Your task to perform on an android device: check google app version Image 0: 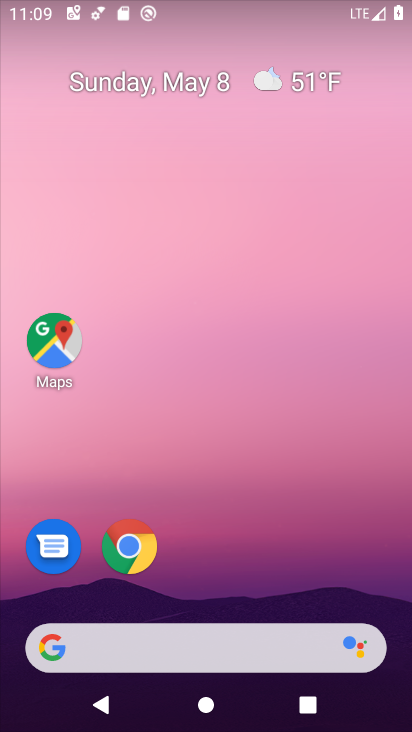
Step 0: drag from (399, 625) to (308, 0)
Your task to perform on an android device: check google app version Image 1: 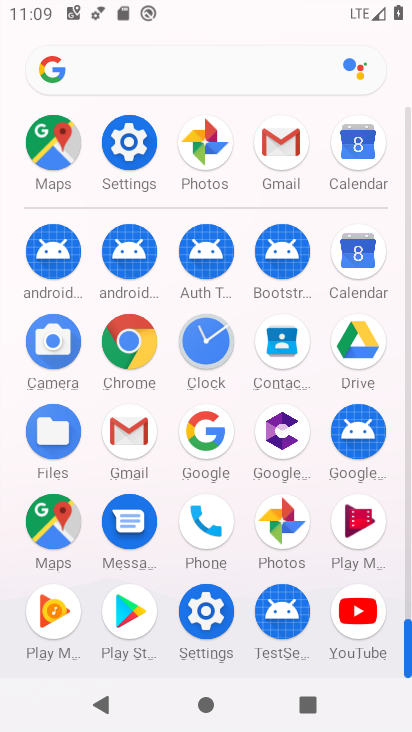
Step 1: click (408, 605)
Your task to perform on an android device: check google app version Image 2: 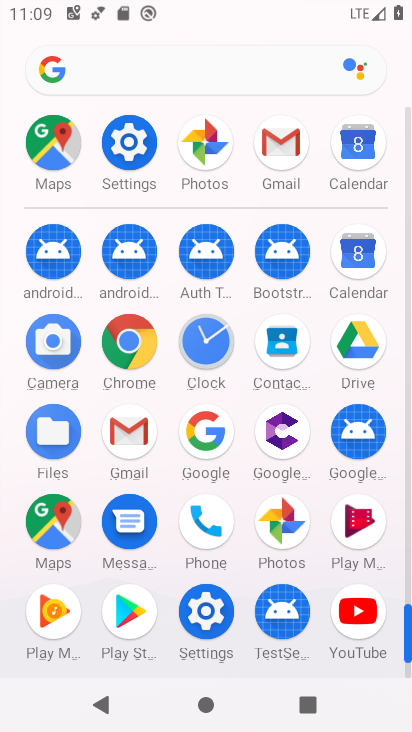
Step 2: click (127, 338)
Your task to perform on an android device: check google app version Image 3: 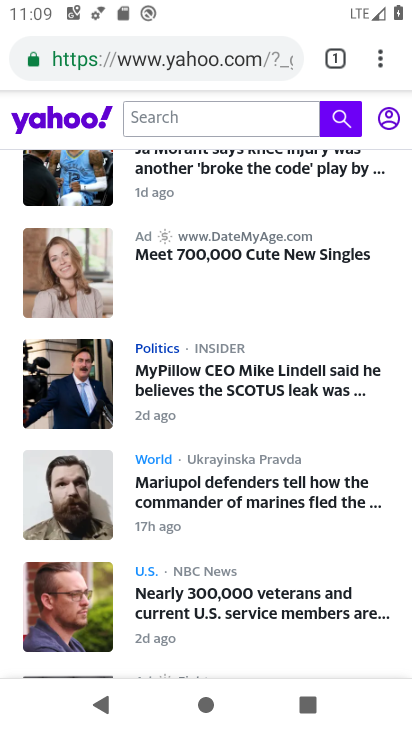
Step 3: click (377, 65)
Your task to perform on an android device: check google app version Image 4: 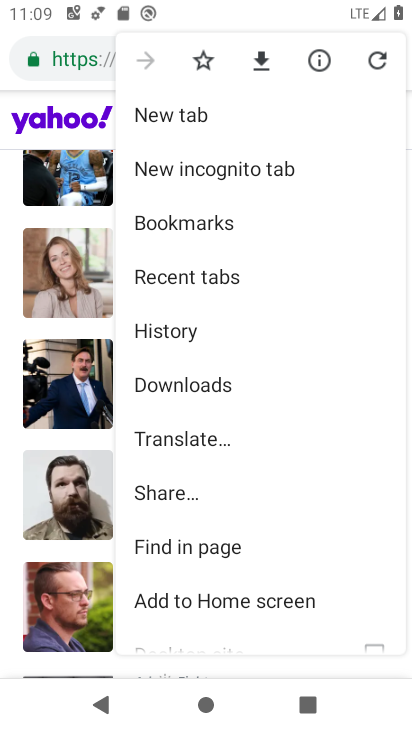
Step 4: drag from (211, 508) to (273, 123)
Your task to perform on an android device: check google app version Image 5: 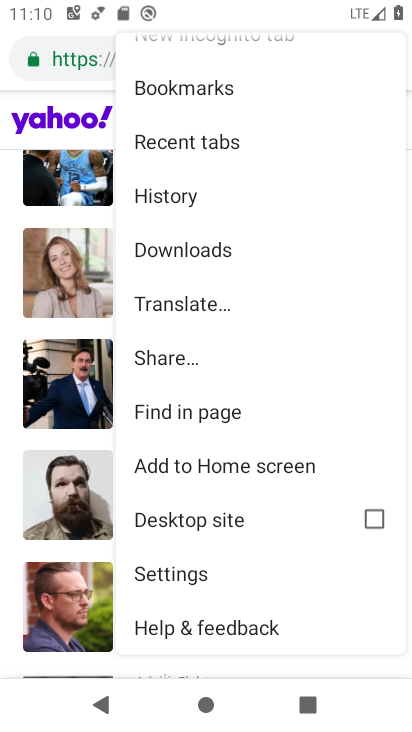
Step 5: click (176, 566)
Your task to perform on an android device: check google app version Image 6: 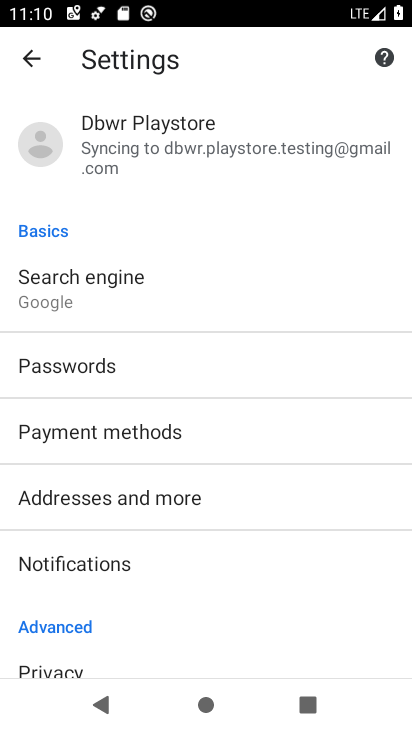
Step 6: drag from (187, 602) to (218, 353)
Your task to perform on an android device: check google app version Image 7: 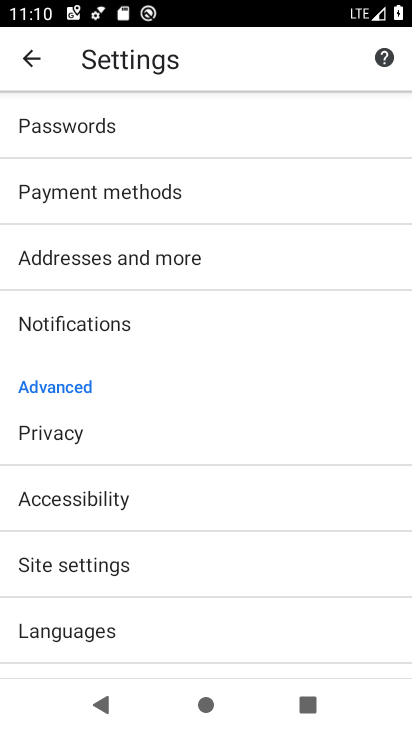
Step 7: drag from (90, 656) to (202, 234)
Your task to perform on an android device: check google app version Image 8: 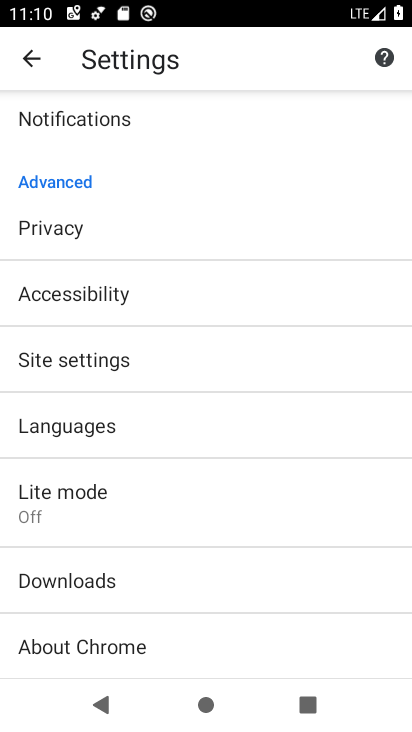
Step 8: click (130, 657)
Your task to perform on an android device: check google app version Image 9: 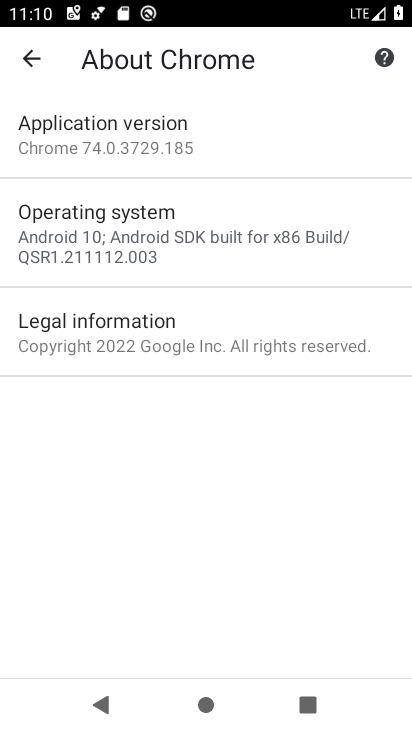
Step 9: click (90, 127)
Your task to perform on an android device: check google app version Image 10: 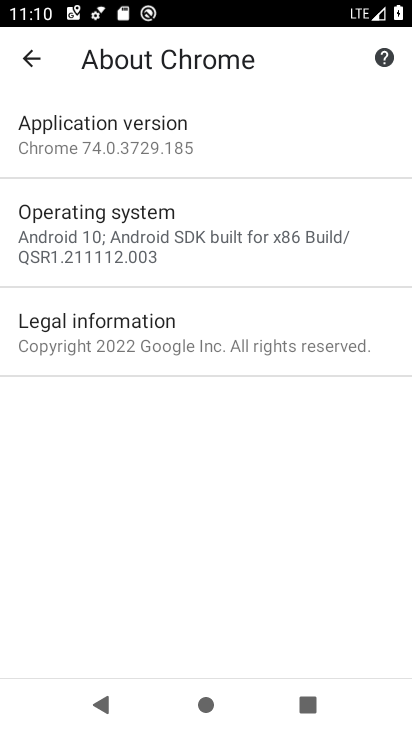
Step 10: task complete